Your task to perform on an android device: turn on the 24-hour format for clock Image 0: 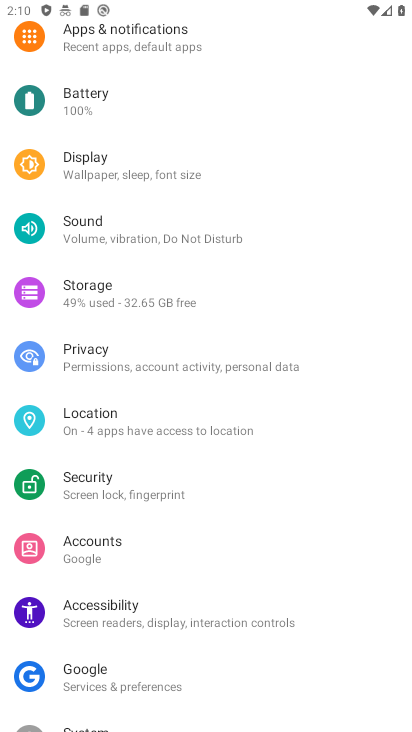
Step 0: press back button
Your task to perform on an android device: turn on the 24-hour format for clock Image 1: 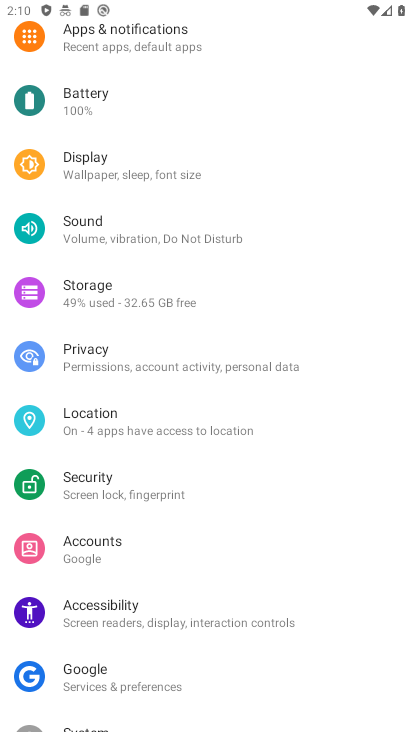
Step 1: press back button
Your task to perform on an android device: turn on the 24-hour format for clock Image 2: 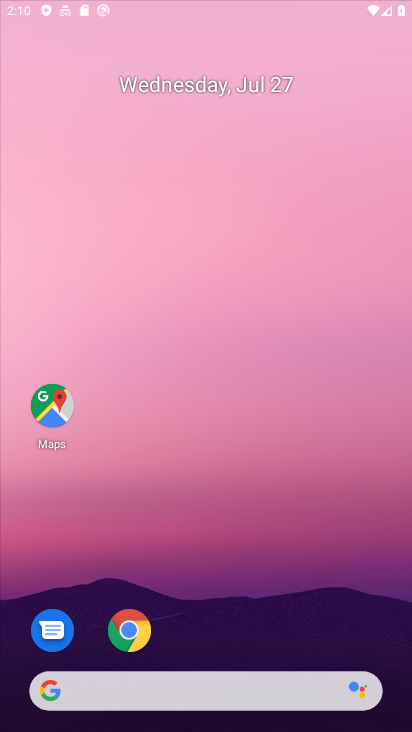
Step 2: press back button
Your task to perform on an android device: turn on the 24-hour format for clock Image 3: 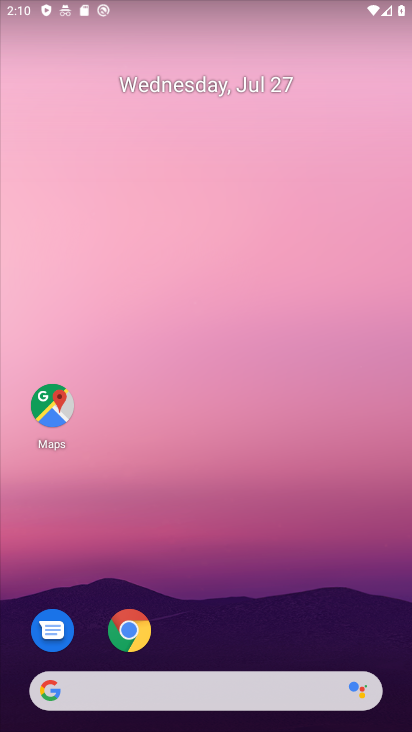
Step 3: drag from (300, 352) to (262, 102)
Your task to perform on an android device: turn on the 24-hour format for clock Image 4: 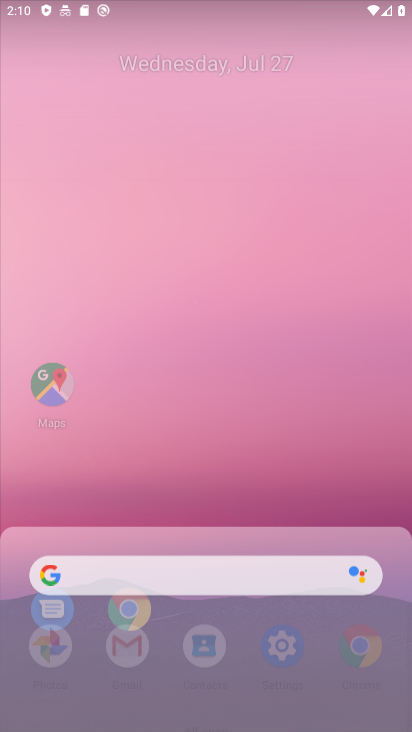
Step 4: drag from (297, 282) to (260, 43)
Your task to perform on an android device: turn on the 24-hour format for clock Image 5: 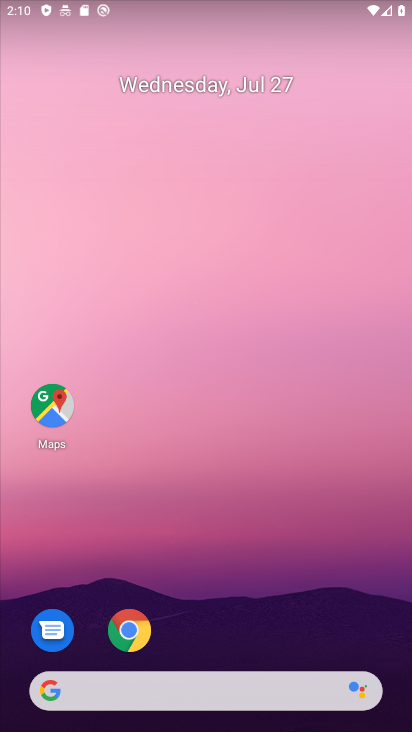
Step 5: drag from (266, 240) to (228, 3)
Your task to perform on an android device: turn on the 24-hour format for clock Image 6: 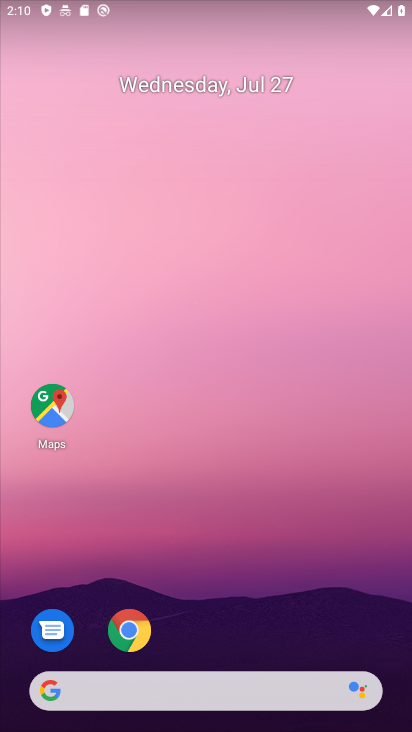
Step 6: drag from (228, 310) to (207, 120)
Your task to perform on an android device: turn on the 24-hour format for clock Image 7: 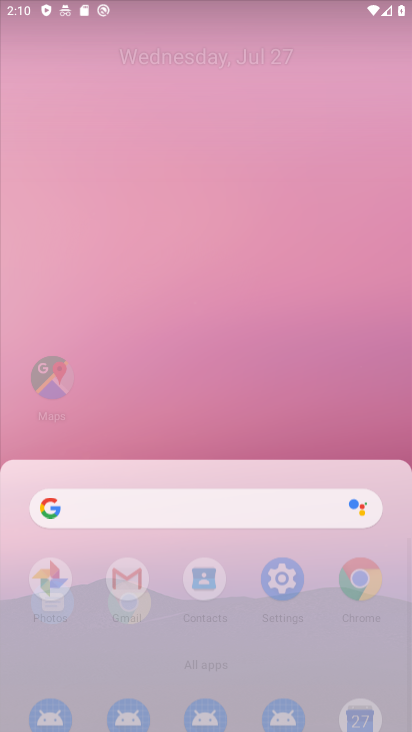
Step 7: drag from (246, 520) to (138, 63)
Your task to perform on an android device: turn on the 24-hour format for clock Image 8: 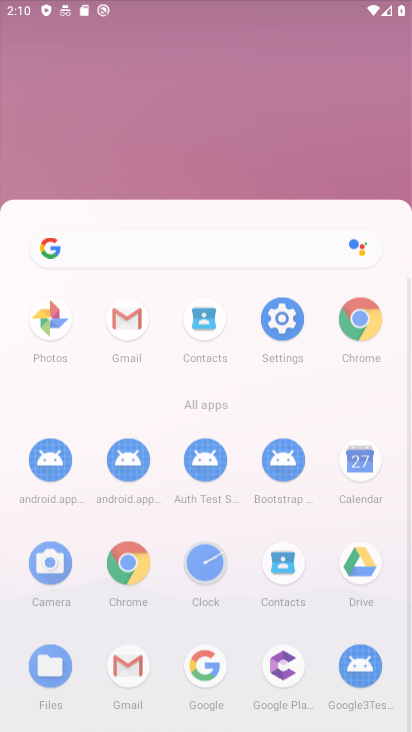
Step 8: drag from (175, 369) to (149, 203)
Your task to perform on an android device: turn on the 24-hour format for clock Image 9: 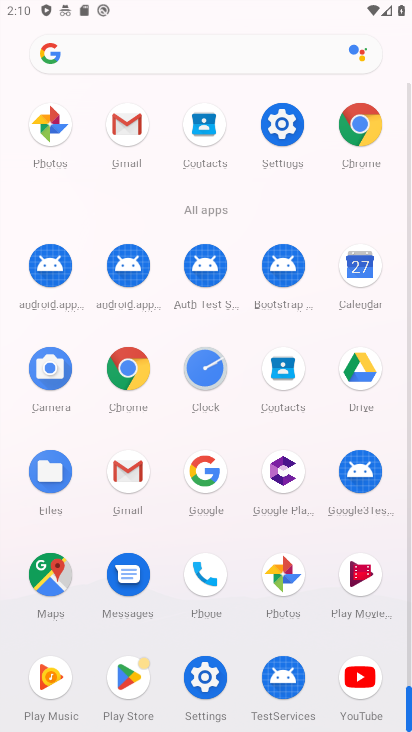
Step 9: drag from (244, 465) to (204, 174)
Your task to perform on an android device: turn on the 24-hour format for clock Image 10: 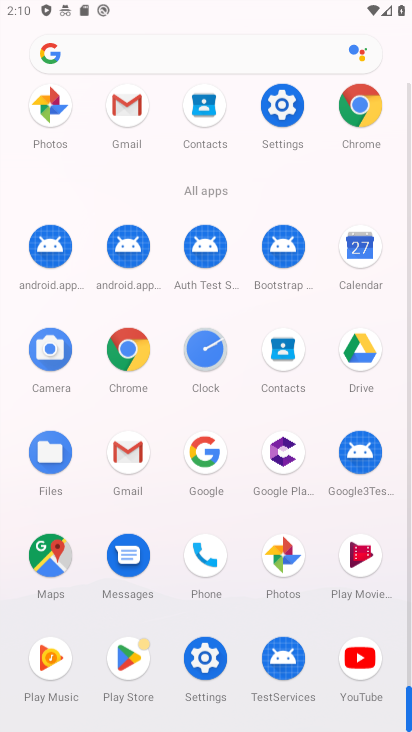
Step 10: drag from (285, 386) to (265, 246)
Your task to perform on an android device: turn on the 24-hour format for clock Image 11: 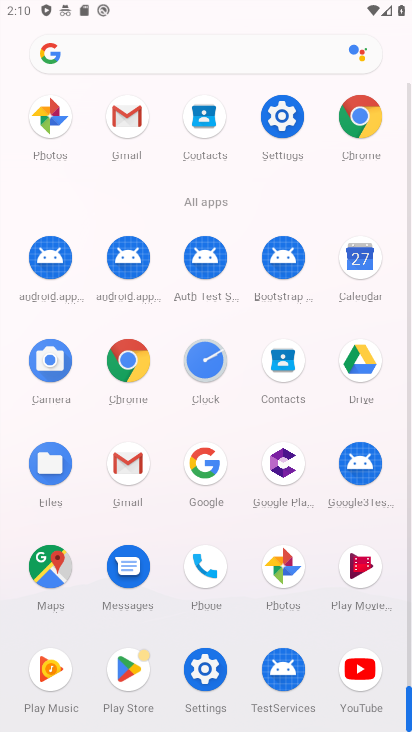
Step 11: drag from (333, 459) to (301, 297)
Your task to perform on an android device: turn on the 24-hour format for clock Image 12: 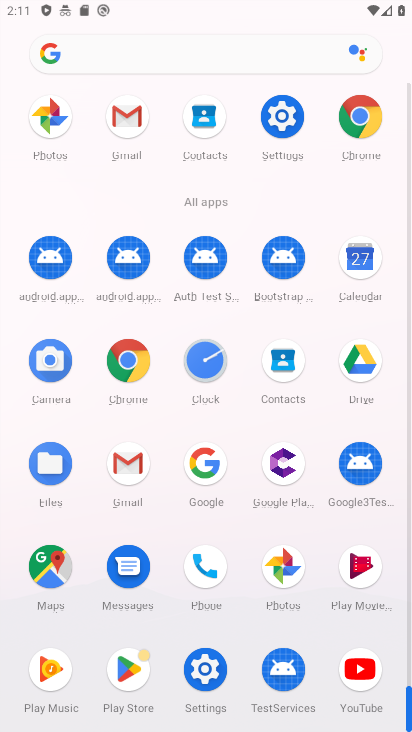
Step 12: click (191, 368)
Your task to perform on an android device: turn on the 24-hour format for clock Image 13: 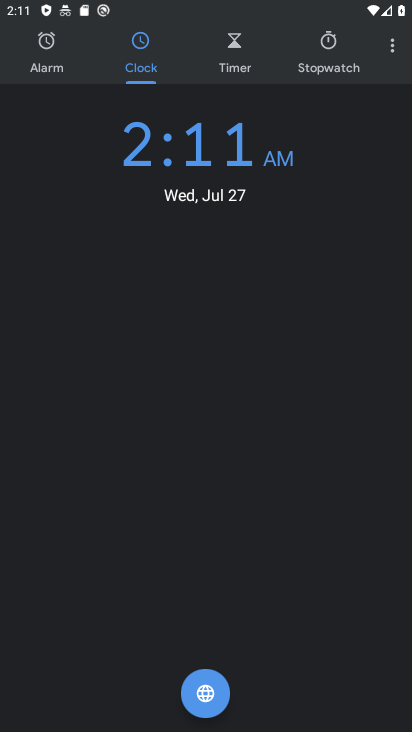
Step 13: click (383, 46)
Your task to perform on an android device: turn on the 24-hour format for clock Image 14: 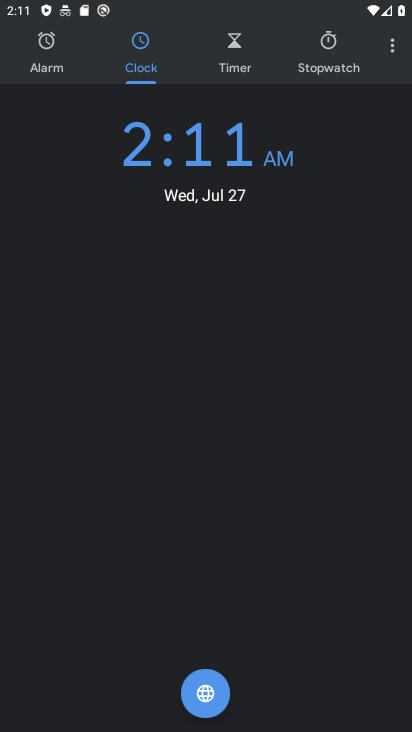
Step 14: click (391, 50)
Your task to perform on an android device: turn on the 24-hour format for clock Image 15: 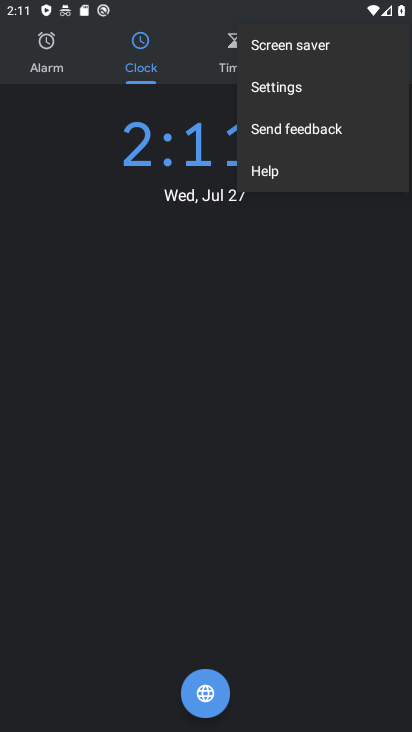
Step 15: click (289, 88)
Your task to perform on an android device: turn on the 24-hour format for clock Image 16: 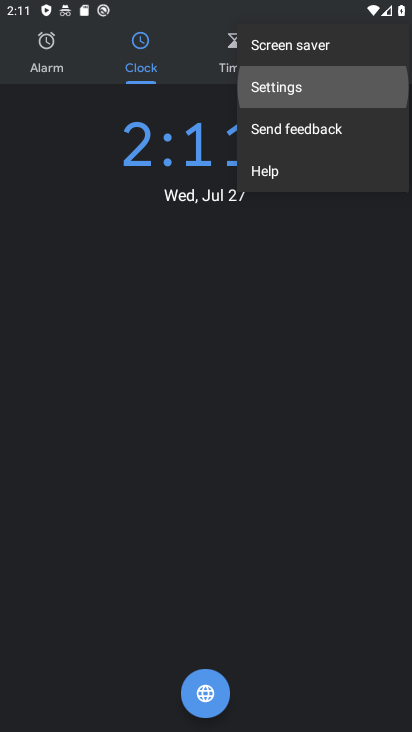
Step 16: click (288, 88)
Your task to perform on an android device: turn on the 24-hour format for clock Image 17: 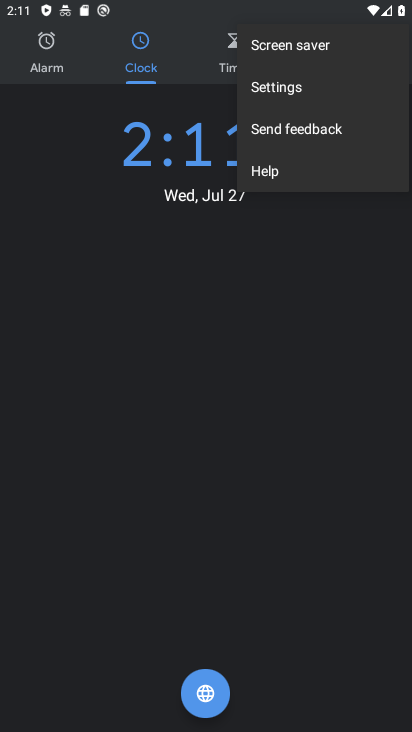
Step 17: click (288, 88)
Your task to perform on an android device: turn on the 24-hour format for clock Image 18: 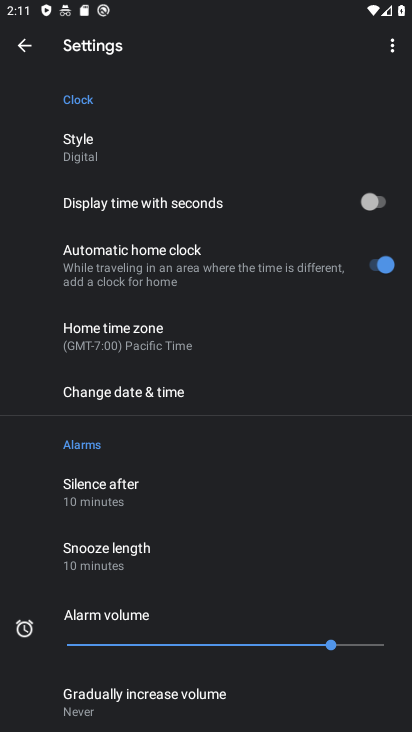
Step 18: click (140, 393)
Your task to perform on an android device: turn on the 24-hour format for clock Image 19: 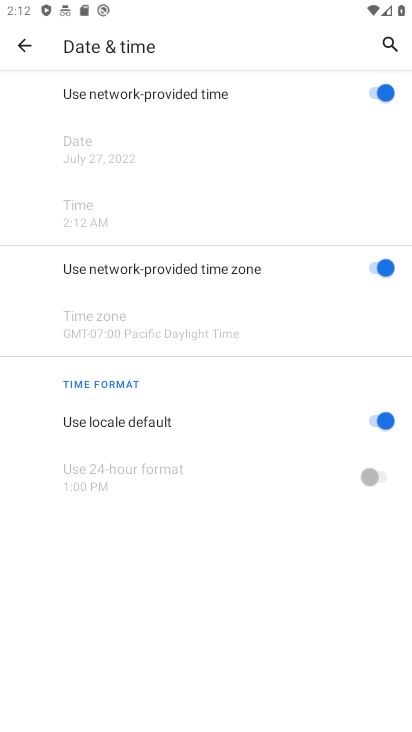
Step 19: click (373, 473)
Your task to perform on an android device: turn on the 24-hour format for clock Image 20: 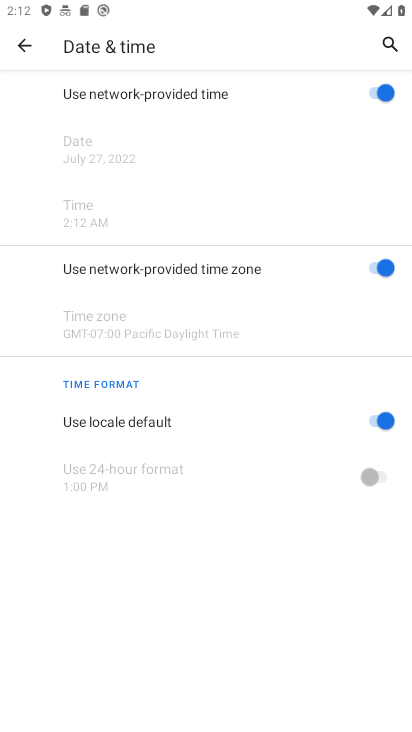
Step 20: click (384, 411)
Your task to perform on an android device: turn on the 24-hour format for clock Image 21: 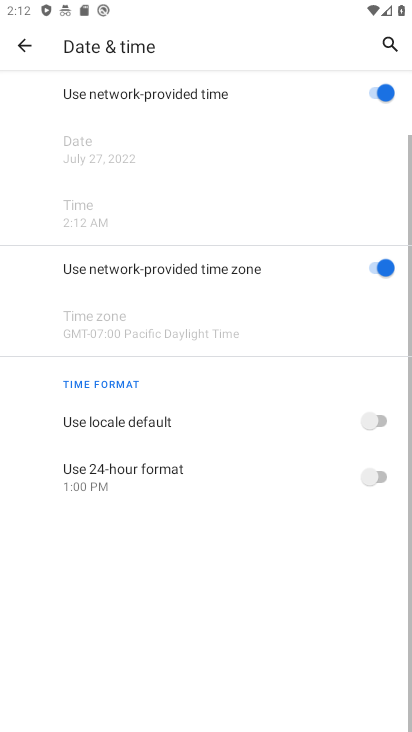
Step 21: click (378, 470)
Your task to perform on an android device: turn on the 24-hour format for clock Image 22: 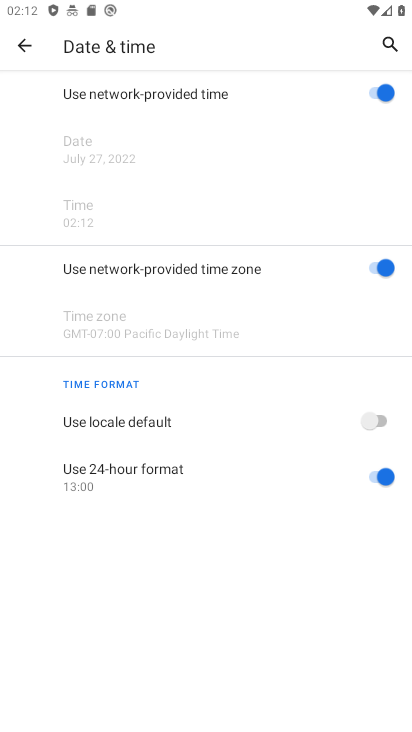
Step 22: task complete